Your task to perform on an android device: Go to Wikipedia Image 0: 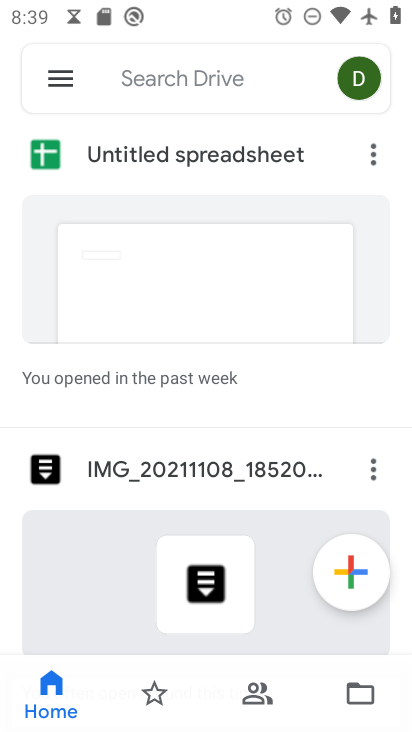
Step 0: press home button
Your task to perform on an android device: Go to Wikipedia Image 1: 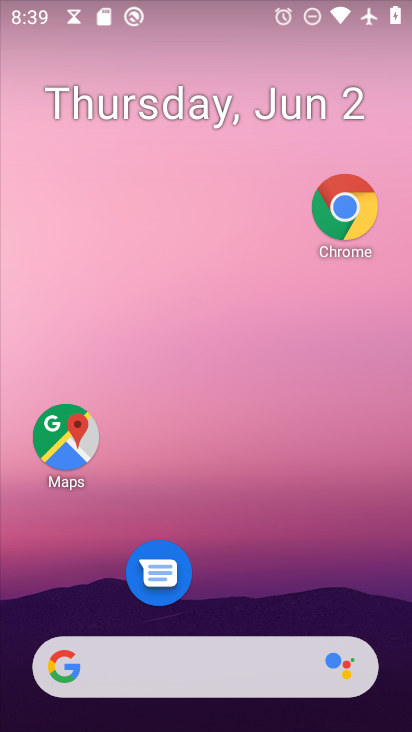
Step 1: click (337, 227)
Your task to perform on an android device: Go to Wikipedia Image 2: 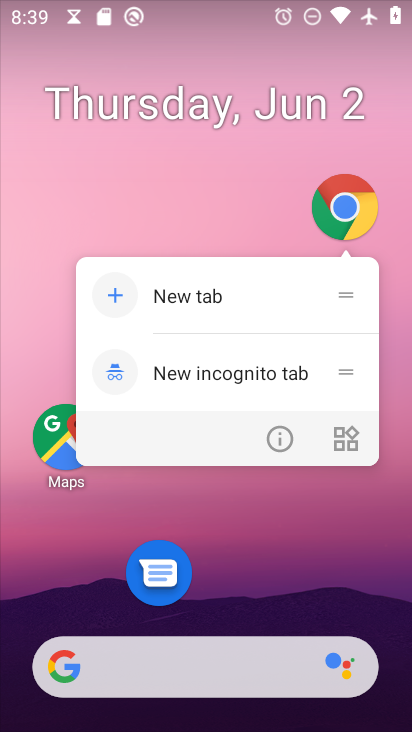
Step 2: click (345, 216)
Your task to perform on an android device: Go to Wikipedia Image 3: 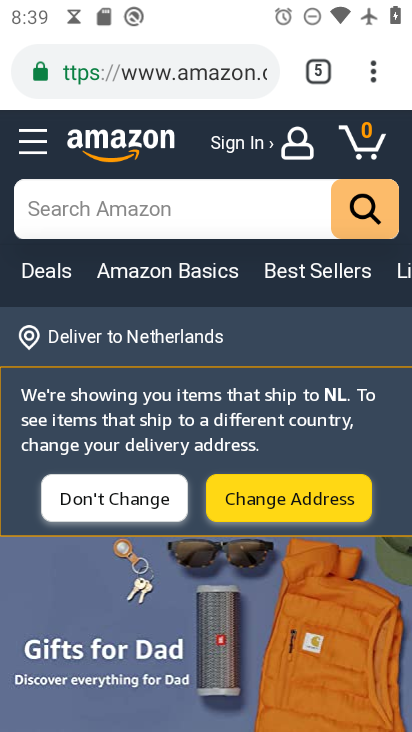
Step 3: drag from (373, 81) to (266, 132)
Your task to perform on an android device: Go to Wikipedia Image 4: 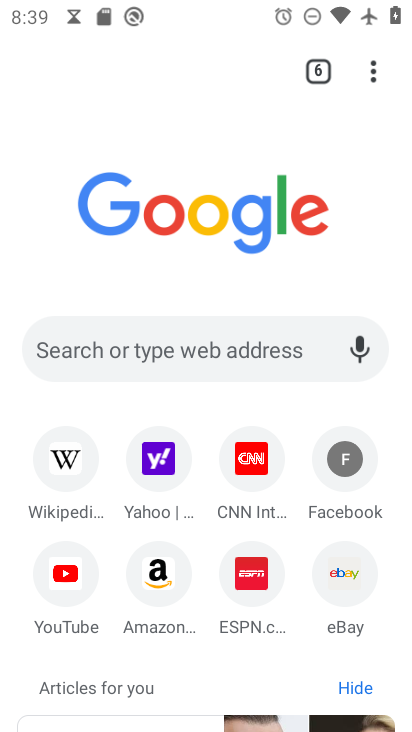
Step 4: click (71, 464)
Your task to perform on an android device: Go to Wikipedia Image 5: 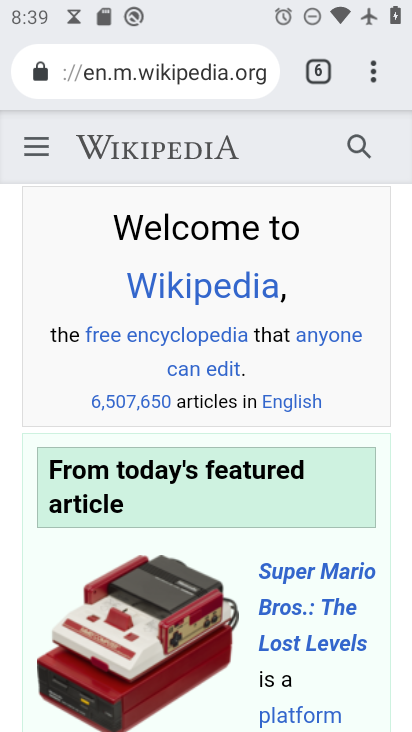
Step 5: task complete